Your task to perform on an android device: Show me productivity apps on the Play Store Image 0: 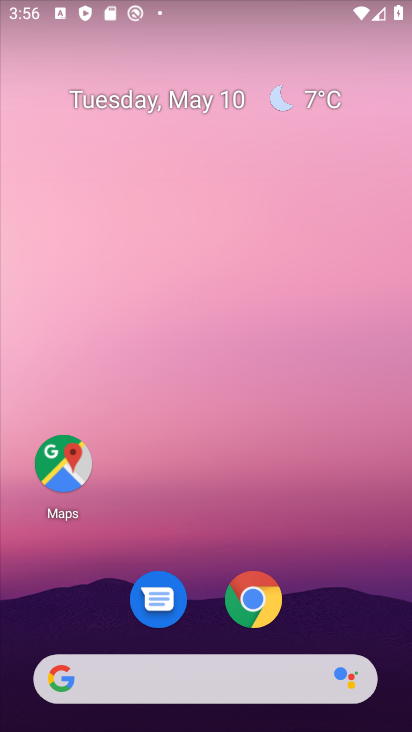
Step 0: drag from (264, 644) to (241, 60)
Your task to perform on an android device: Show me productivity apps on the Play Store Image 1: 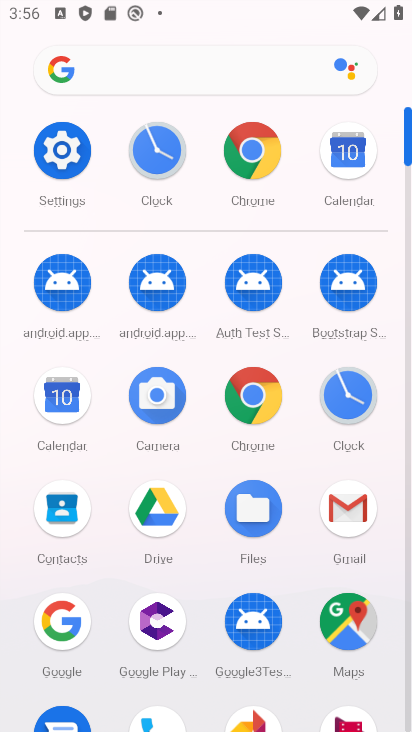
Step 1: drag from (313, 612) to (313, 167)
Your task to perform on an android device: Show me productivity apps on the Play Store Image 2: 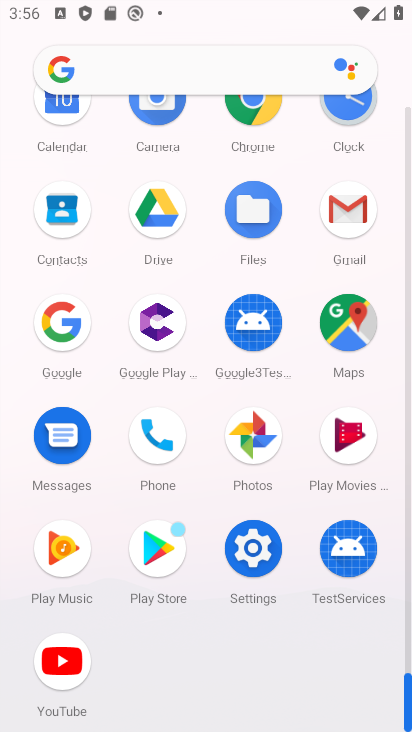
Step 2: click (163, 571)
Your task to perform on an android device: Show me productivity apps on the Play Store Image 3: 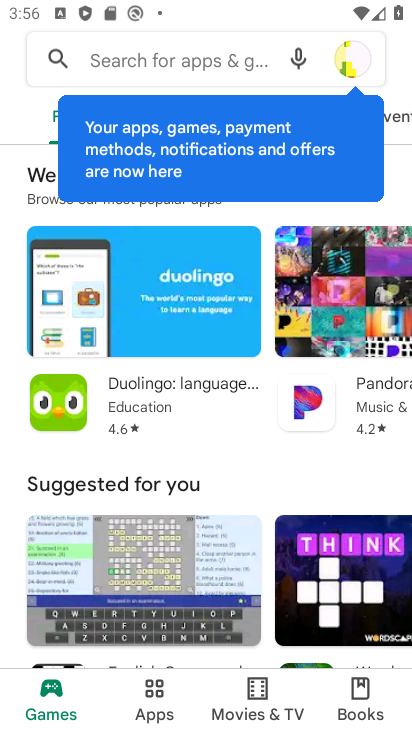
Step 3: click (162, 57)
Your task to perform on an android device: Show me productivity apps on the Play Store Image 4: 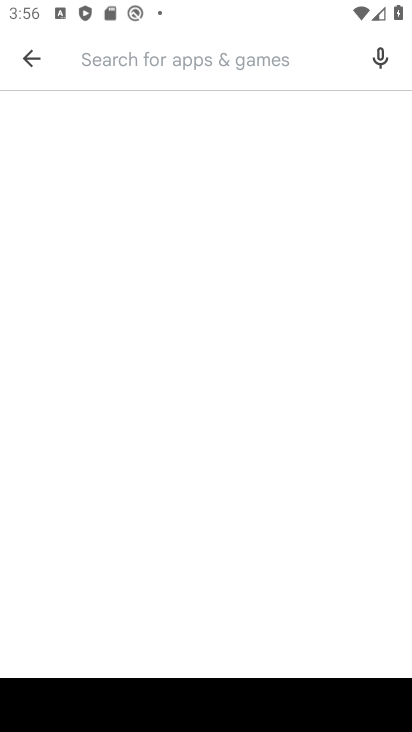
Step 4: type "productivity aaps"
Your task to perform on an android device: Show me productivity apps on the Play Store Image 5: 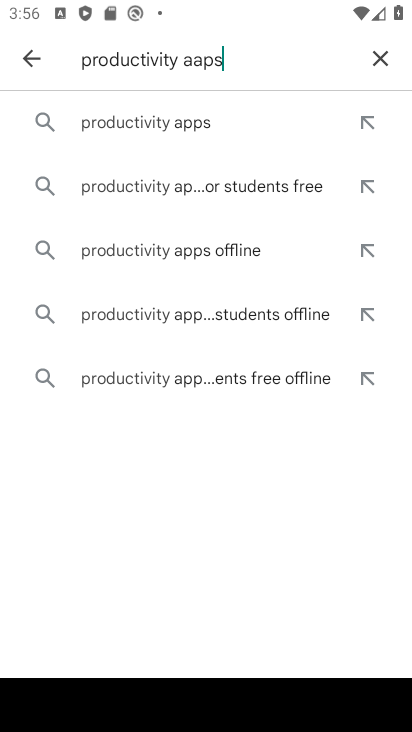
Step 5: click (204, 127)
Your task to perform on an android device: Show me productivity apps on the Play Store Image 6: 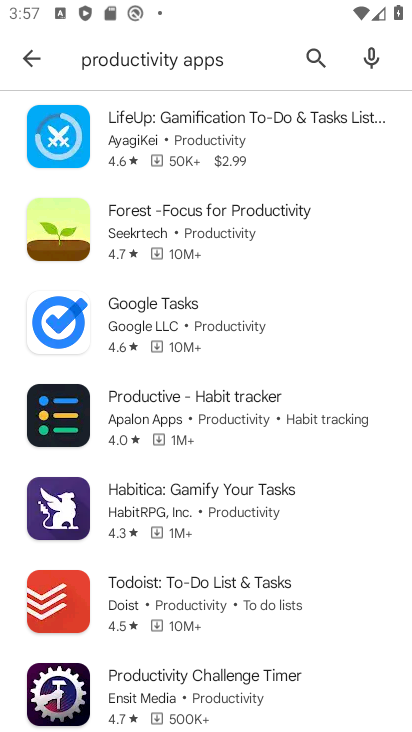
Step 6: task complete